Your task to perform on an android device: turn on location history Image 0: 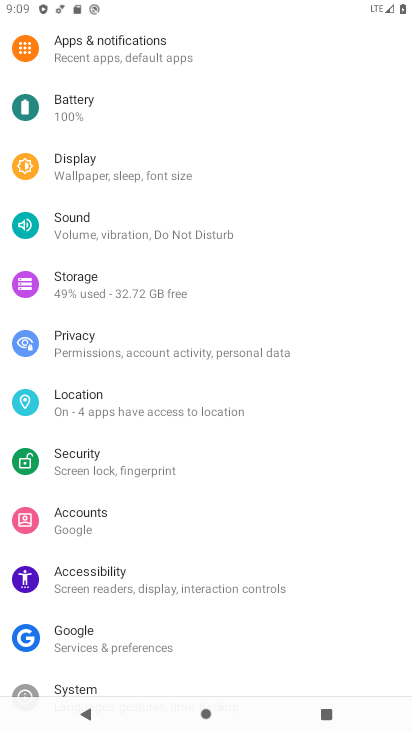
Step 0: click (182, 405)
Your task to perform on an android device: turn on location history Image 1: 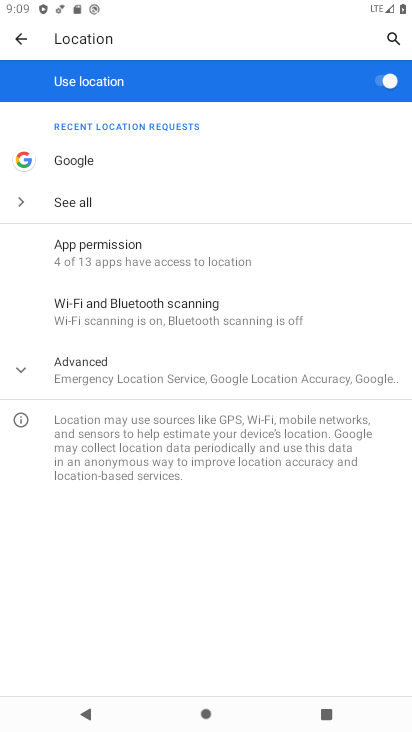
Step 1: click (173, 371)
Your task to perform on an android device: turn on location history Image 2: 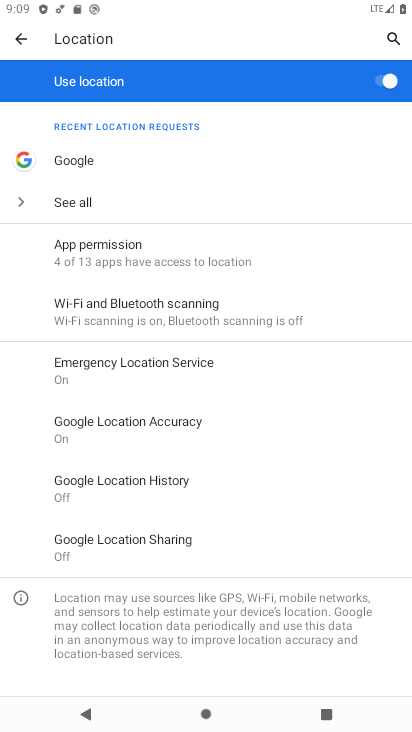
Step 2: click (202, 478)
Your task to perform on an android device: turn on location history Image 3: 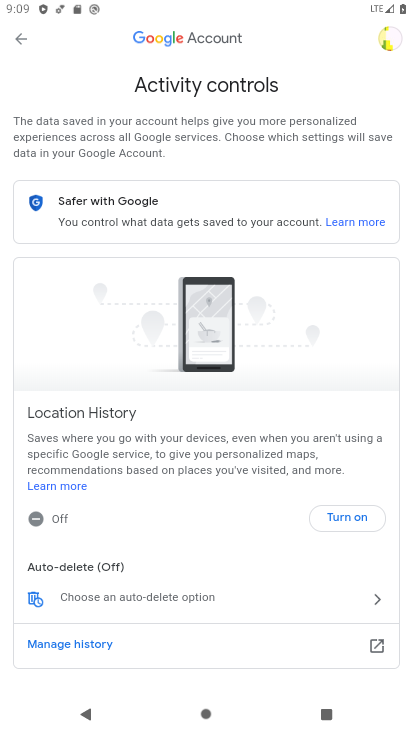
Step 3: click (363, 511)
Your task to perform on an android device: turn on location history Image 4: 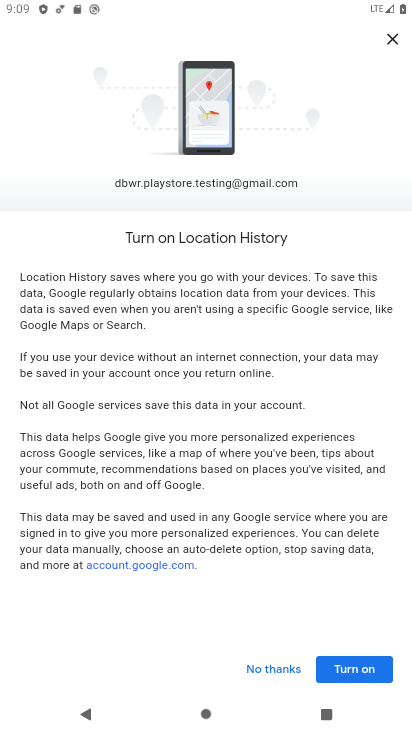
Step 4: click (372, 671)
Your task to perform on an android device: turn on location history Image 5: 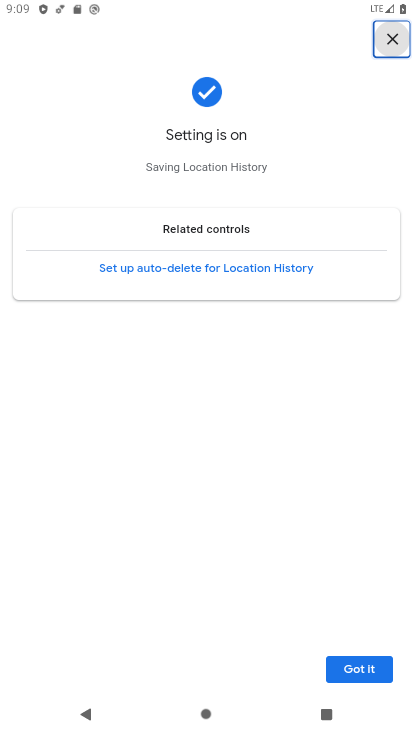
Step 5: click (364, 660)
Your task to perform on an android device: turn on location history Image 6: 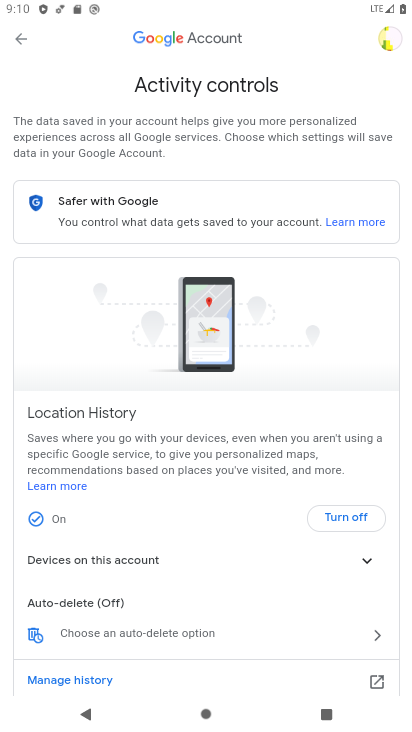
Step 6: task complete